Your task to perform on an android device: open a bookmark in the chrome app Image 0: 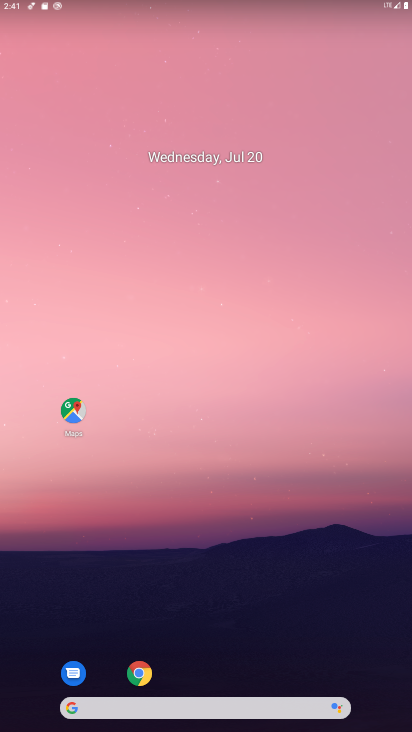
Step 0: click (140, 670)
Your task to perform on an android device: open a bookmark in the chrome app Image 1: 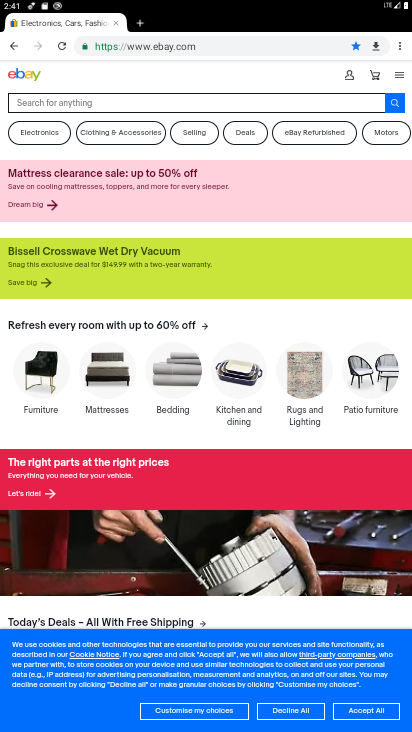
Step 1: click (401, 44)
Your task to perform on an android device: open a bookmark in the chrome app Image 2: 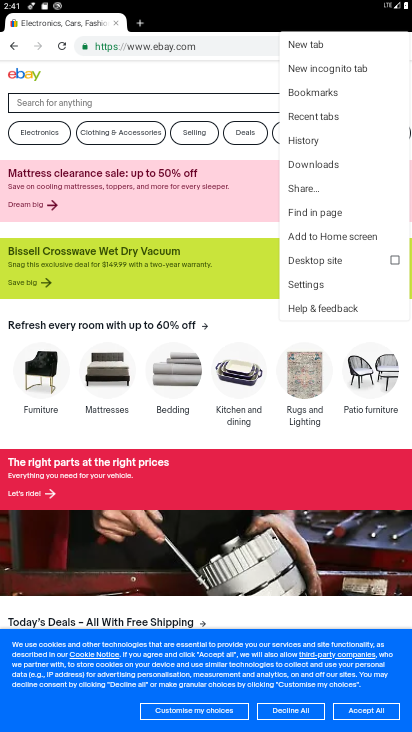
Step 2: click (315, 87)
Your task to perform on an android device: open a bookmark in the chrome app Image 3: 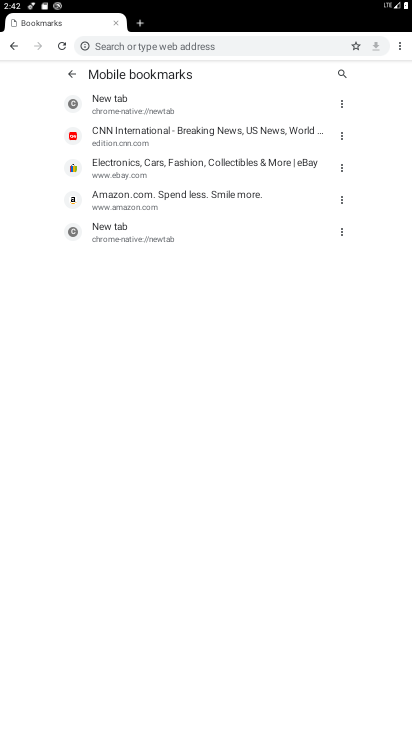
Step 3: click (141, 199)
Your task to perform on an android device: open a bookmark in the chrome app Image 4: 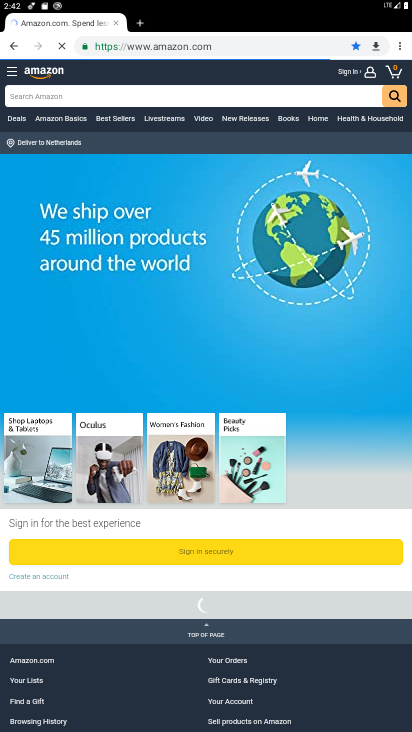
Step 4: task complete